Your task to perform on an android device: add a contact Image 0: 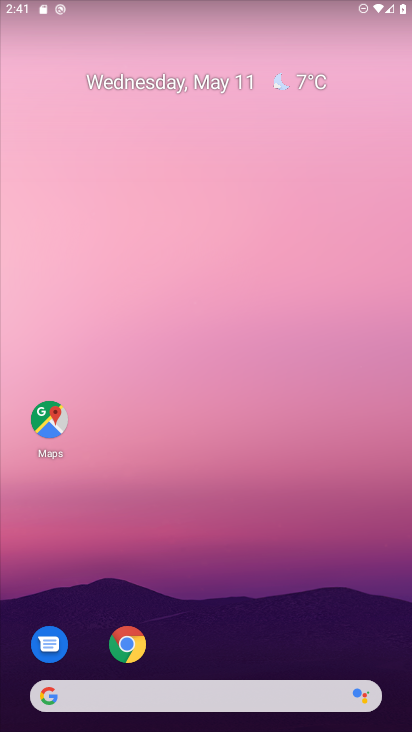
Step 0: drag from (194, 630) to (247, 86)
Your task to perform on an android device: add a contact Image 1: 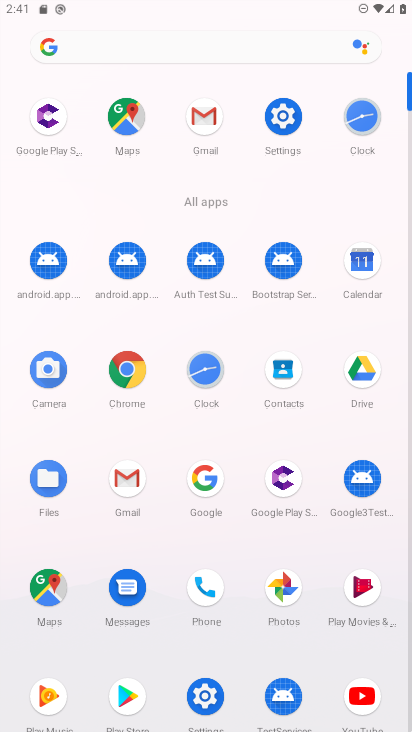
Step 1: click (273, 375)
Your task to perform on an android device: add a contact Image 2: 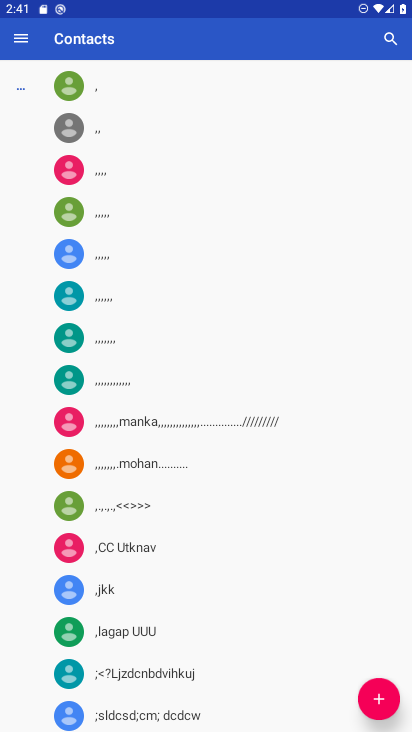
Step 2: click (375, 697)
Your task to perform on an android device: add a contact Image 3: 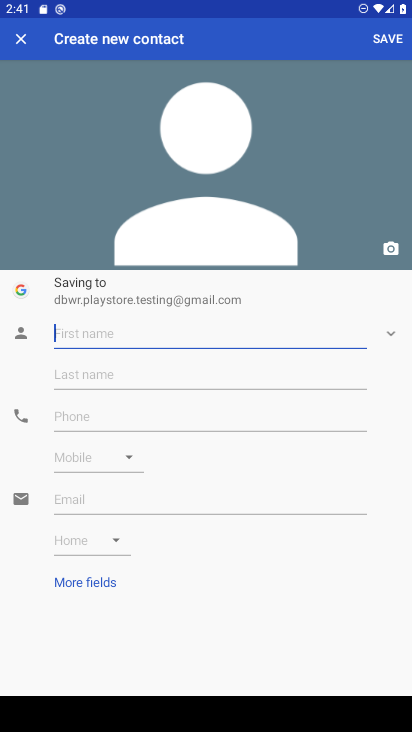
Step 3: type "nhjljkh"
Your task to perform on an android device: add a contact Image 4: 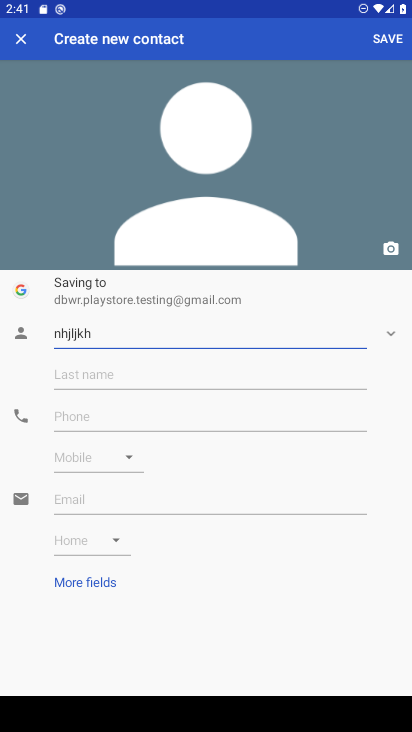
Step 4: click (111, 419)
Your task to perform on an android device: add a contact Image 5: 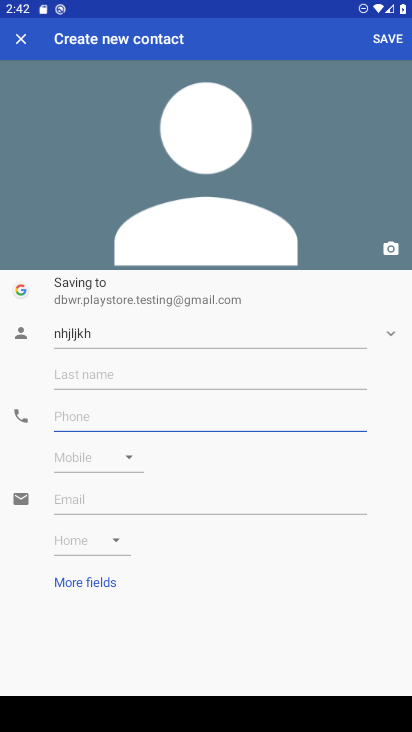
Step 5: type "0909909090"
Your task to perform on an android device: add a contact Image 6: 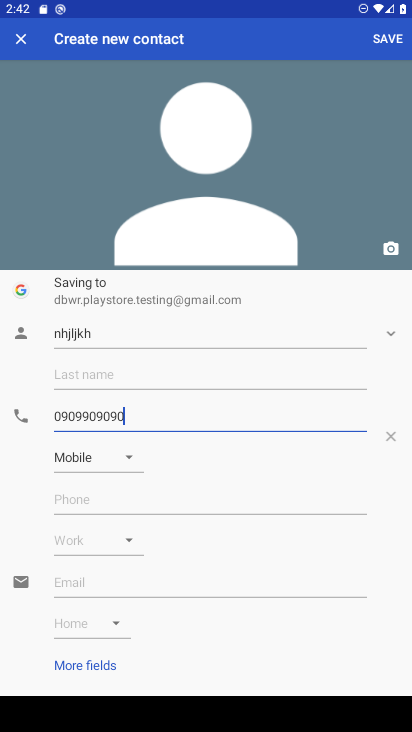
Step 6: click (389, 42)
Your task to perform on an android device: add a contact Image 7: 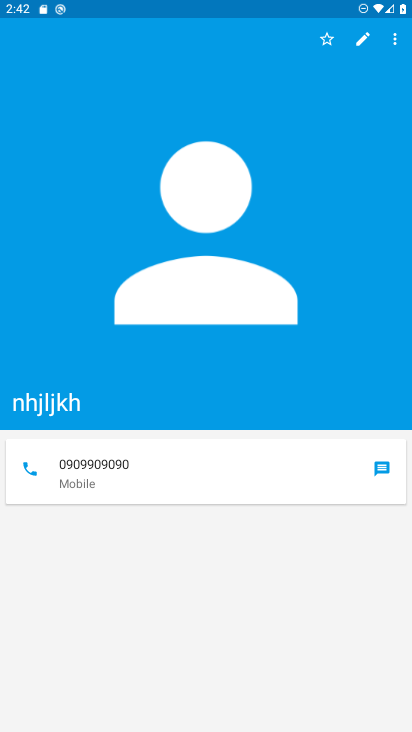
Step 7: task complete